Your task to perform on an android device: Go to Maps Image 0: 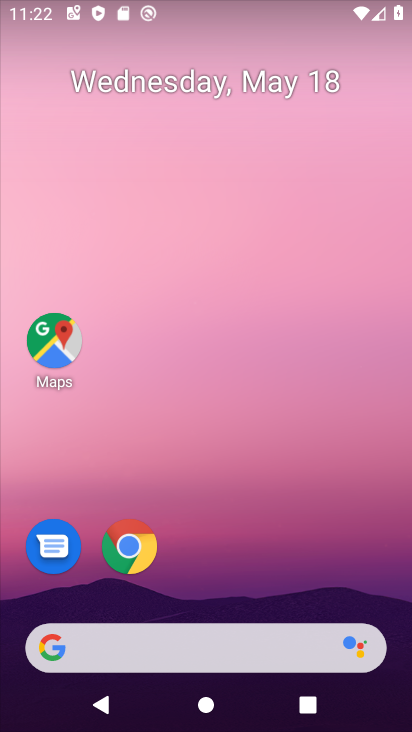
Step 0: click (57, 345)
Your task to perform on an android device: Go to Maps Image 1: 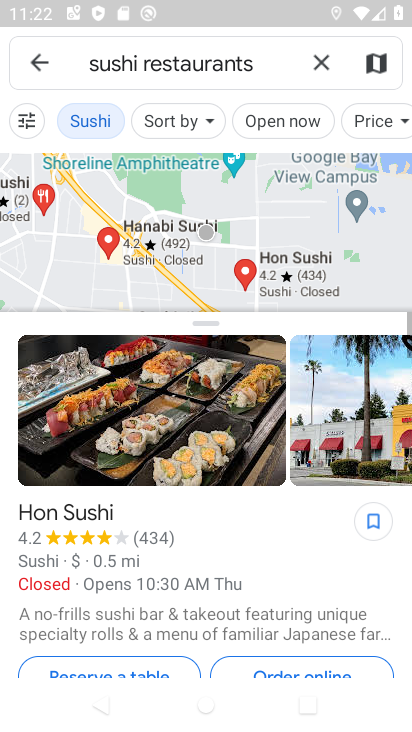
Step 1: task complete